Your task to perform on an android device: turn on wifi Image 0: 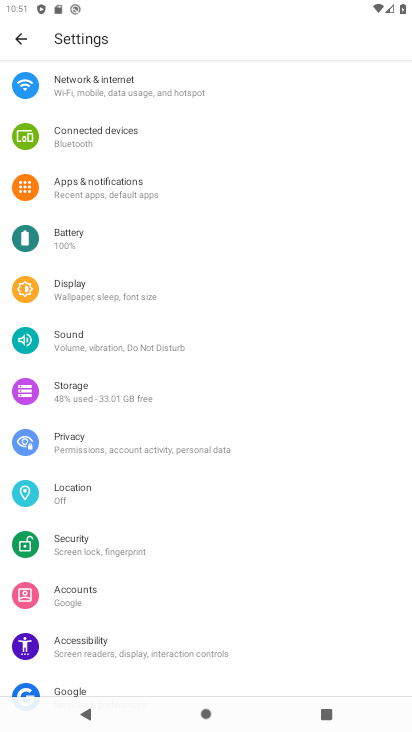
Step 0: press home button
Your task to perform on an android device: turn on wifi Image 1: 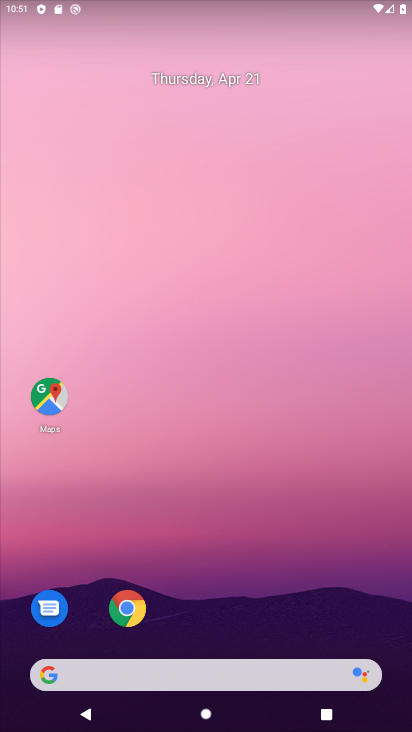
Step 1: drag from (237, 559) to (232, 162)
Your task to perform on an android device: turn on wifi Image 2: 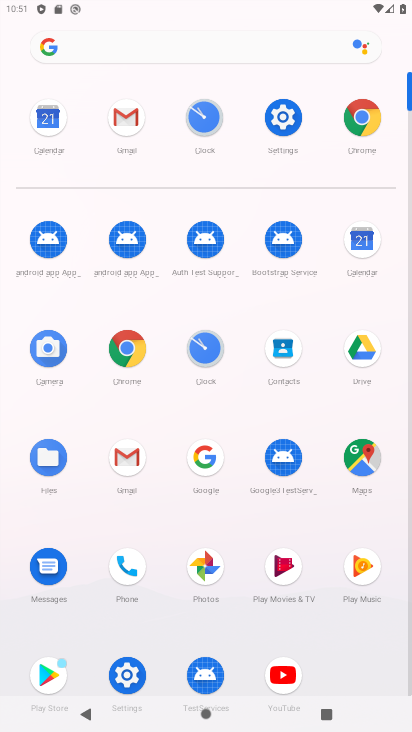
Step 2: click (284, 125)
Your task to perform on an android device: turn on wifi Image 3: 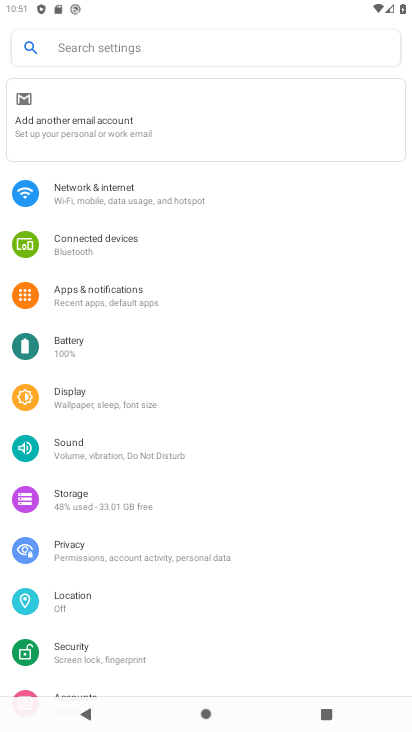
Step 3: click (94, 192)
Your task to perform on an android device: turn on wifi Image 4: 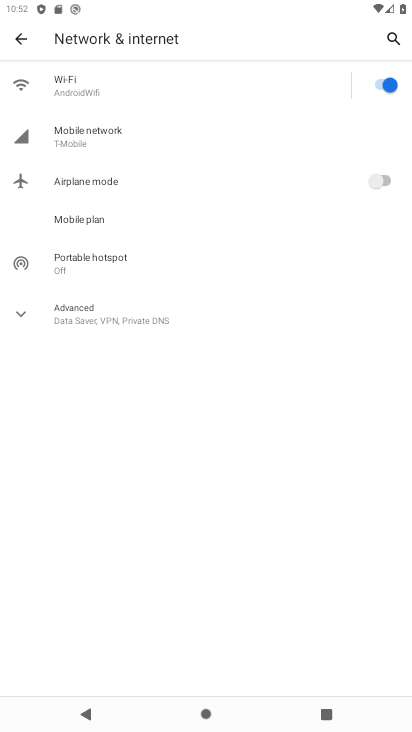
Step 4: task complete